Your task to perform on an android device: Go to wifi settings Image 0: 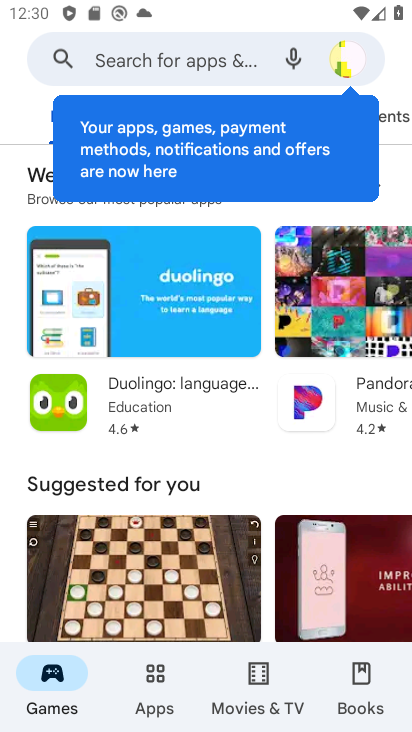
Step 0: press home button
Your task to perform on an android device: Go to wifi settings Image 1: 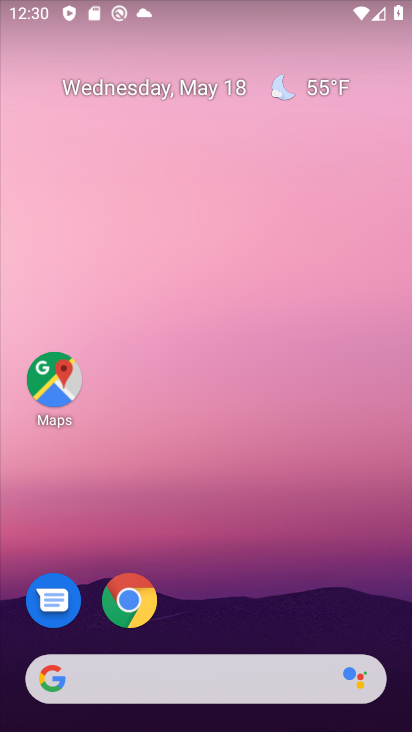
Step 1: drag from (258, 686) to (253, 240)
Your task to perform on an android device: Go to wifi settings Image 2: 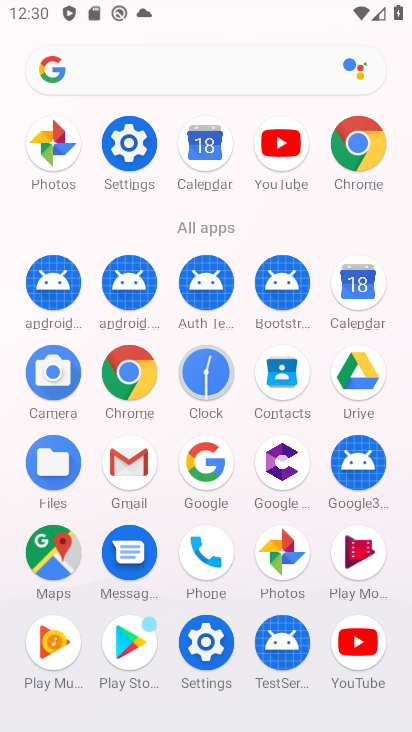
Step 2: click (147, 160)
Your task to perform on an android device: Go to wifi settings Image 3: 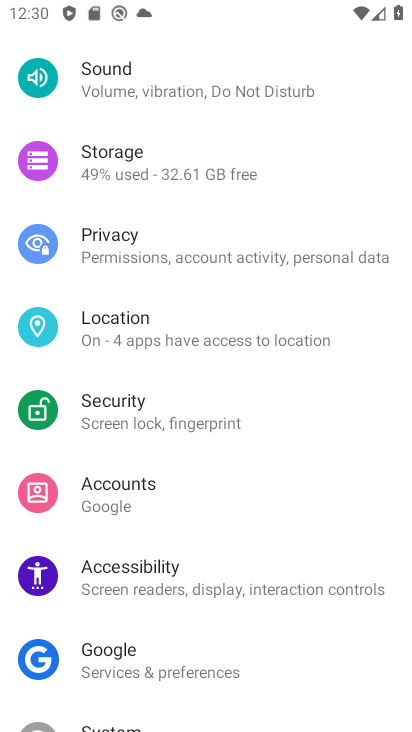
Step 3: drag from (234, 123) to (221, 644)
Your task to perform on an android device: Go to wifi settings Image 4: 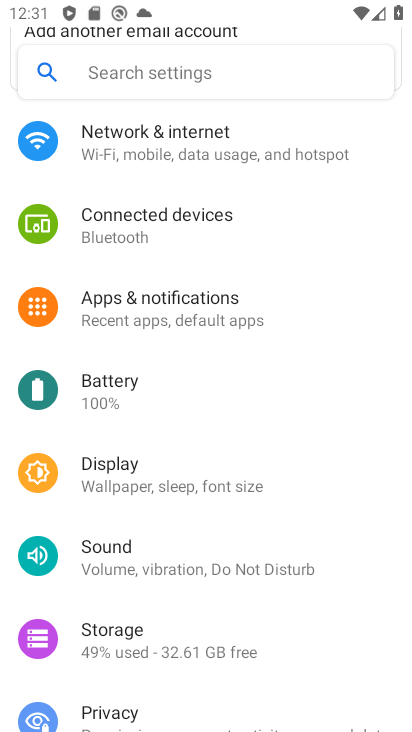
Step 4: click (142, 147)
Your task to perform on an android device: Go to wifi settings Image 5: 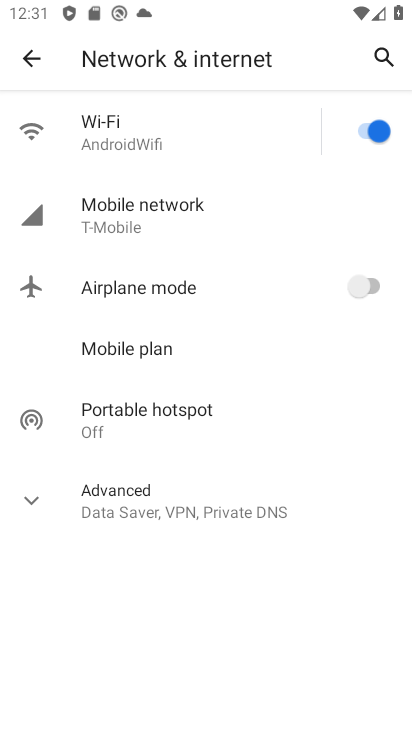
Step 5: click (152, 138)
Your task to perform on an android device: Go to wifi settings Image 6: 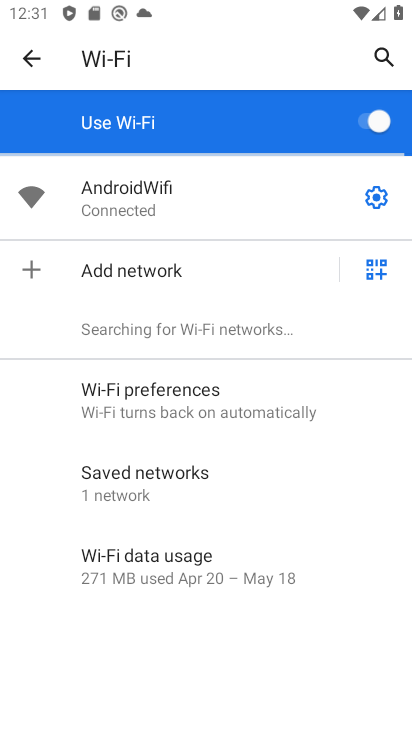
Step 6: task complete